Your task to perform on an android device: manage bookmarks in the chrome app Image 0: 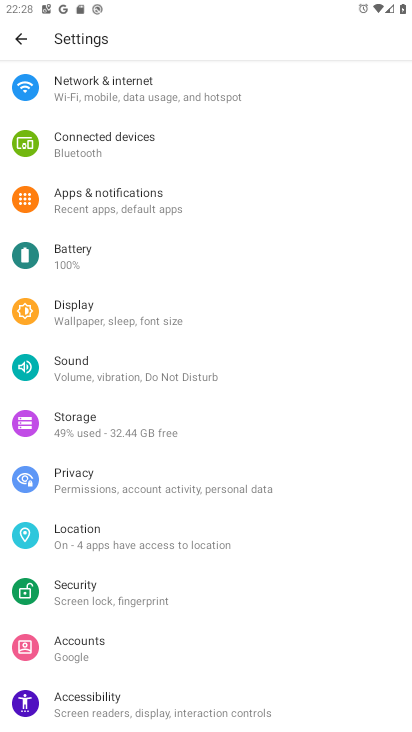
Step 0: press home button
Your task to perform on an android device: manage bookmarks in the chrome app Image 1: 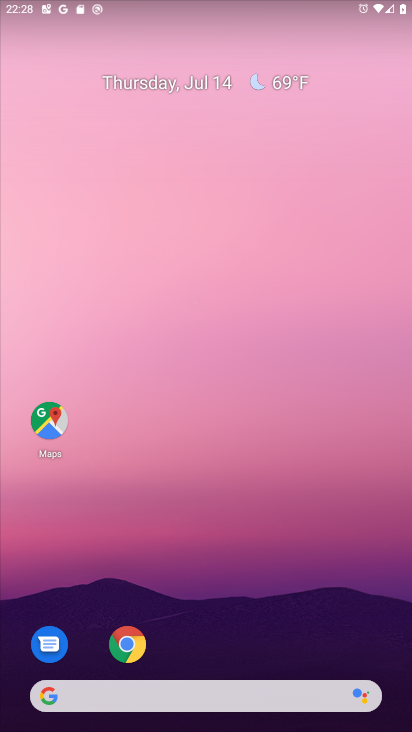
Step 1: drag from (208, 621) to (228, 65)
Your task to perform on an android device: manage bookmarks in the chrome app Image 2: 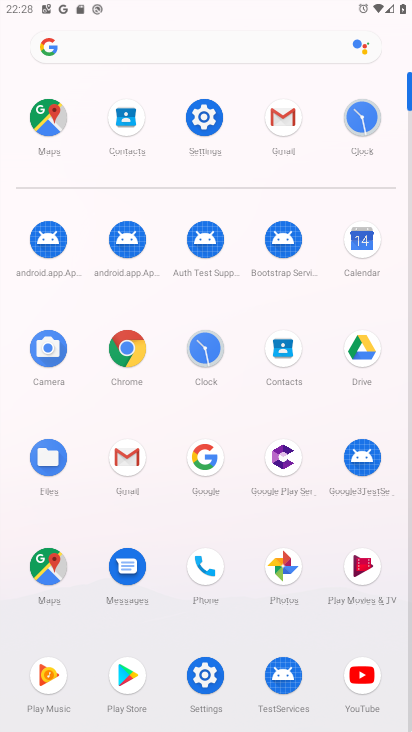
Step 2: click (128, 355)
Your task to perform on an android device: manage bookmarks in the chrome app Image 3: 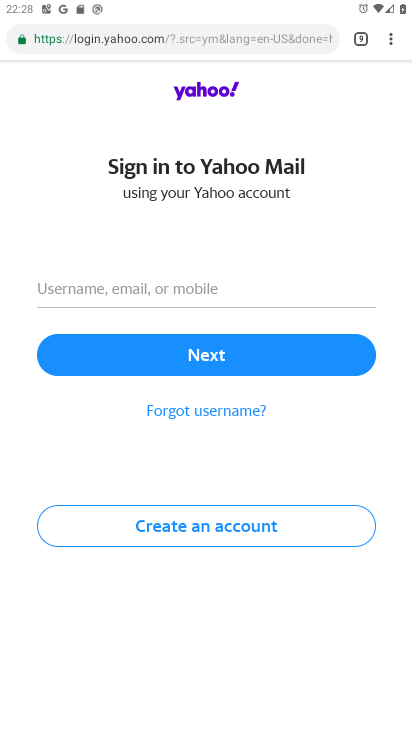
Step 3: click (398, 45)
Your task to perform on an android device: manage bookmarks in the chrome app Image 4: 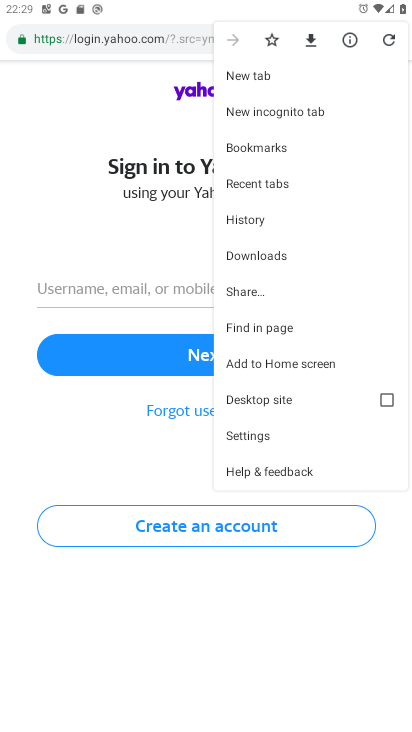
Step 4: click (261, 158)
Your task to perform on an android device: manage bookmarks in the chrome app Image 5: 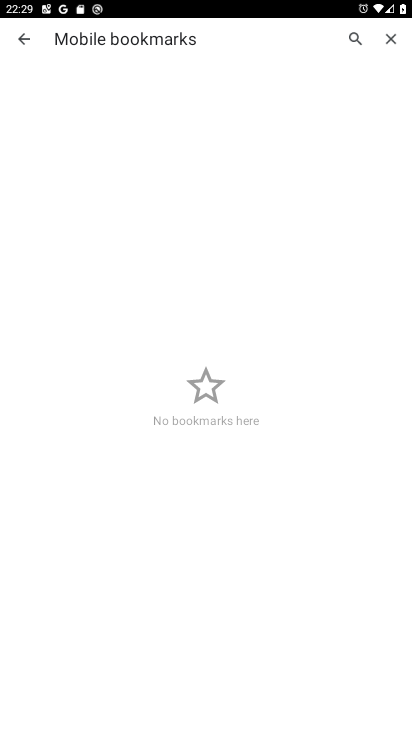
Step 5: task complete